Your task to perform on an android device: turn off wifi Image 0: 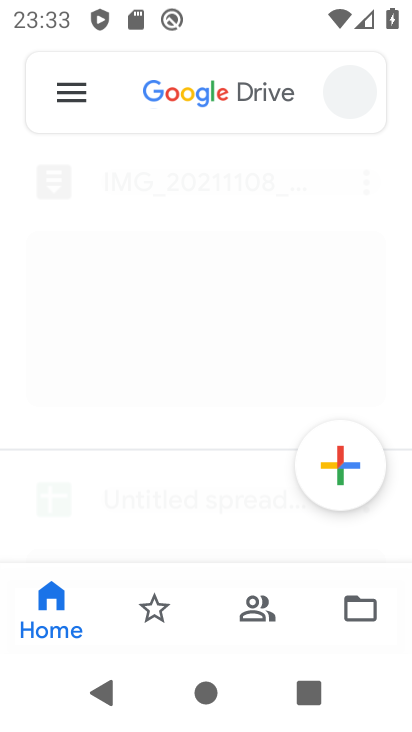
Step 0: press home button
Your task to perform on an android device: turn off wifi Image 1: 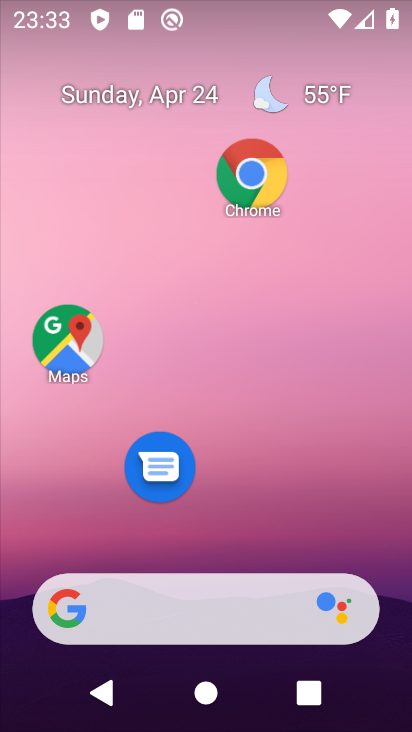
Step 1: drag from (273, 513) to (313, 50)
Your task to perform on an android device: turn off wifi Image 2: 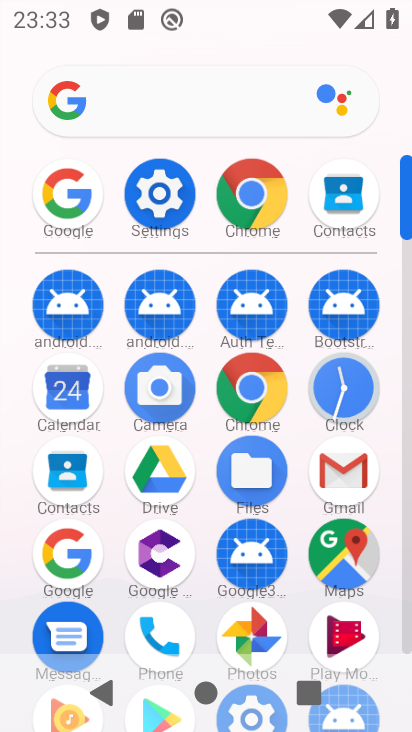
Step 2: click (159, 194)
Your task to perform on an android device: turn off wifi Image 3: 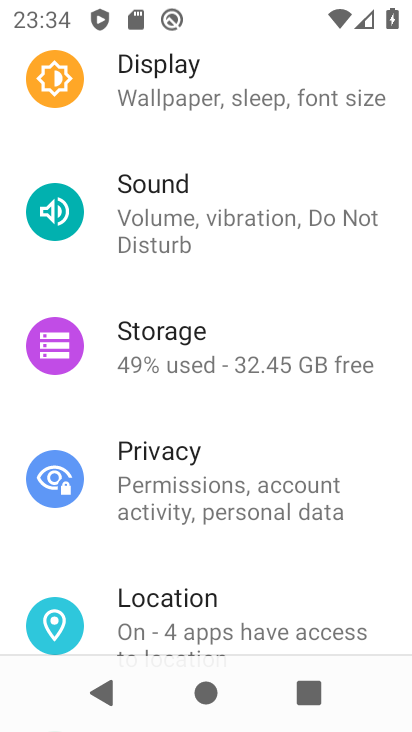
Step 3: drag from (156, 153) to (223, 617)
Your task to perform on an android device: turn off wifi Image 4: 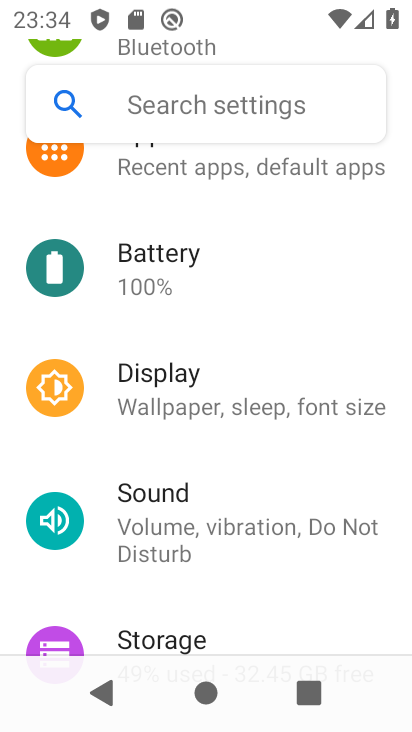
Step 4: drag from (143, 203) to (214, 637)
Your task to perform on an android device: turn off wifi Image 5: 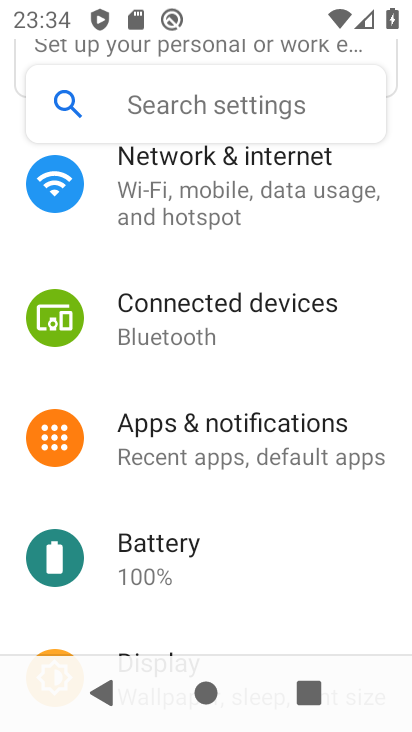
Step 5: click (173, 164)
Your task to perform on an android device: turn off wifi Image 6: 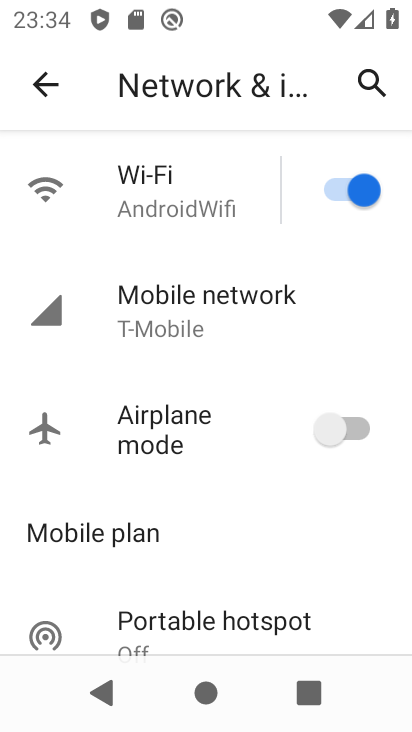
Step 6: click (358, 195)
Your task to perform on an android device: turn off wifi Image 7: 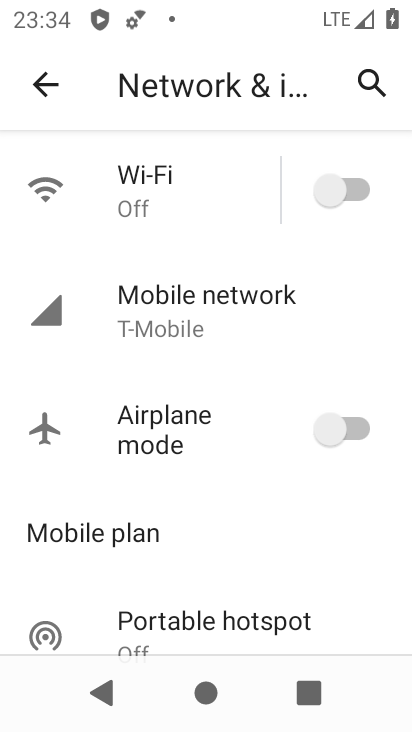
Step 7: task complete